Your task to perform on an android device: empty trash in google photos Image 0: 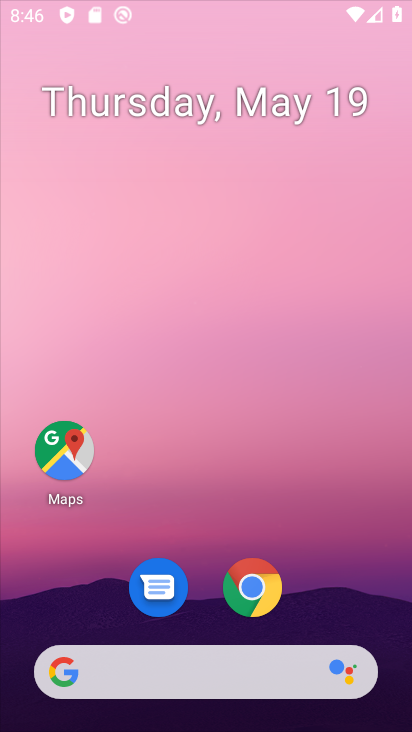
Step 0: click (249, 590)
Your task to perform on an android device: empty trash in google photos Image 1: 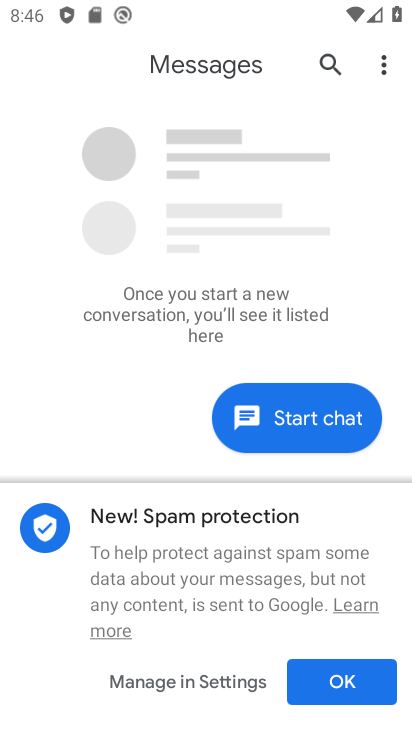
Step 1: press home button
Your task to perform on an android device: empty trash in google photos Image 2: 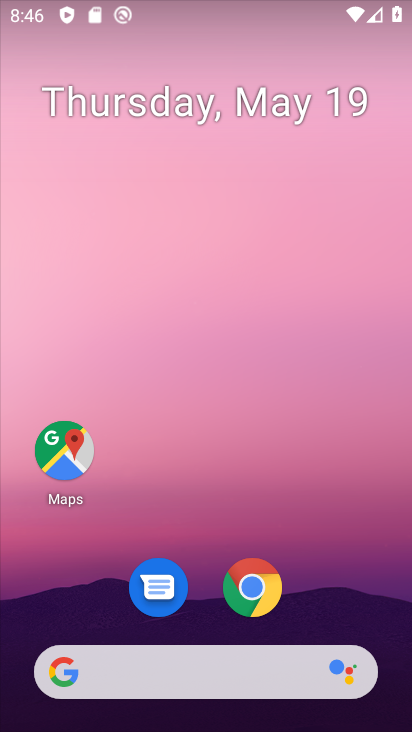
Step 2: drag from (354, 593) to (277, 67)
Your task to perform on an android device: empty trash in google photos Image 3: 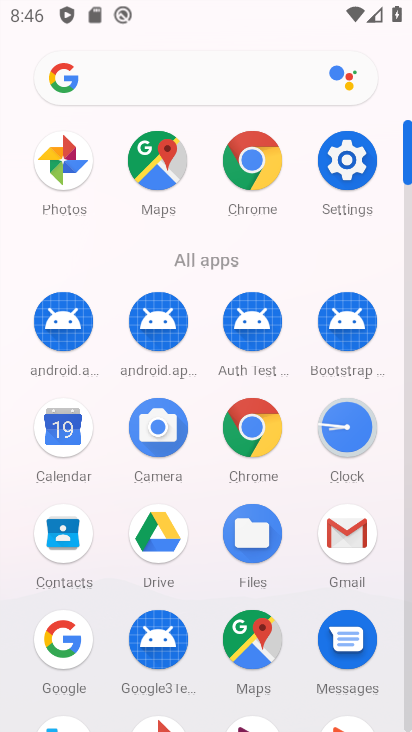
Step 3: click (68, 153)
Your task to perform on an android device: empty trash in google photos Image 4: 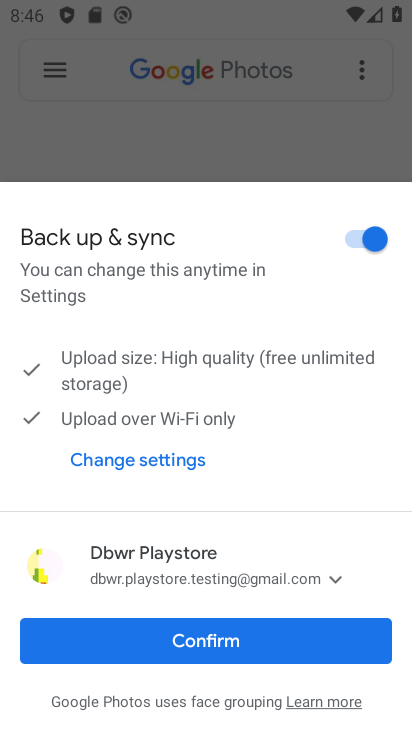
Step 4: click (265, 632)
Your task to perform on an android device: empty trash in google photos Image 5: 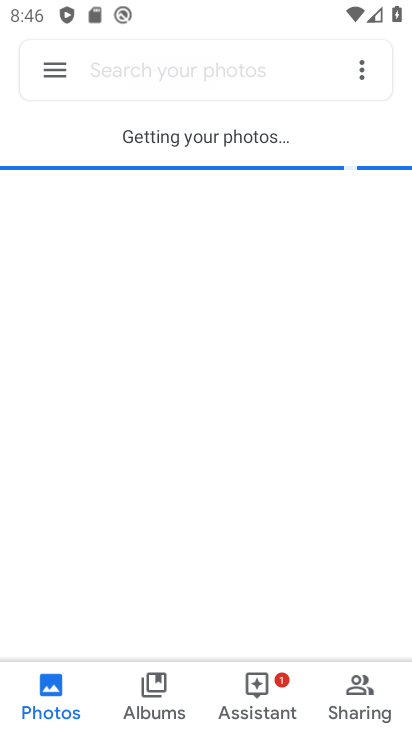
Step 5: click (57, 67)
Your task to perform on an android device: empty trash in google photos Image 6: 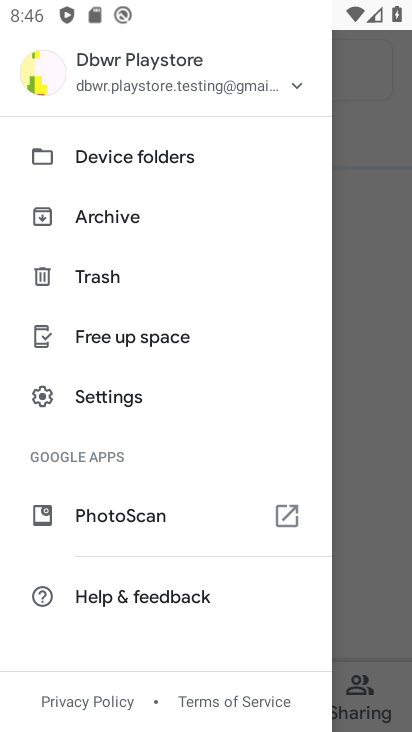
Step 6: click (123, 280)
Your task to perform on an android device: empty trash in google photos Image 7: 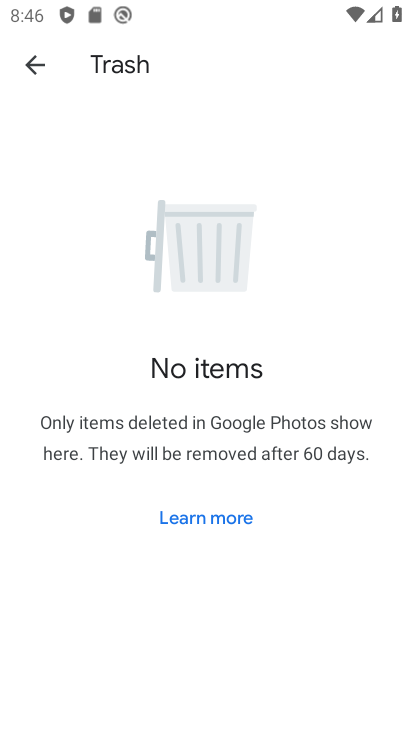
Step 7: task complete